Your task to perform on an android device: clear history in the chrome app Image 0: 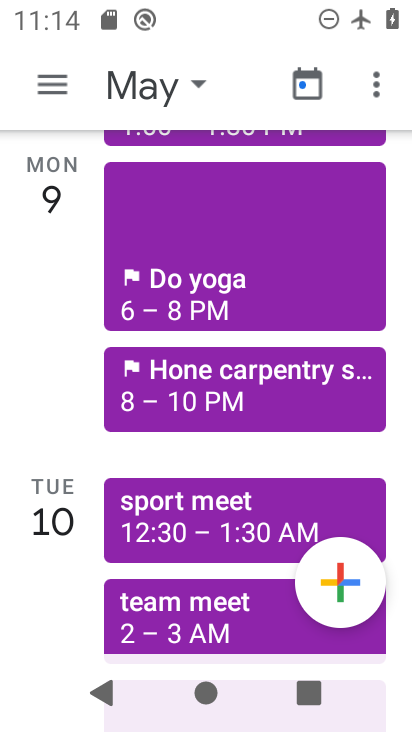
Step 0: press home button
Your task to perform on an android device: clear history in the chrome app Image 1: 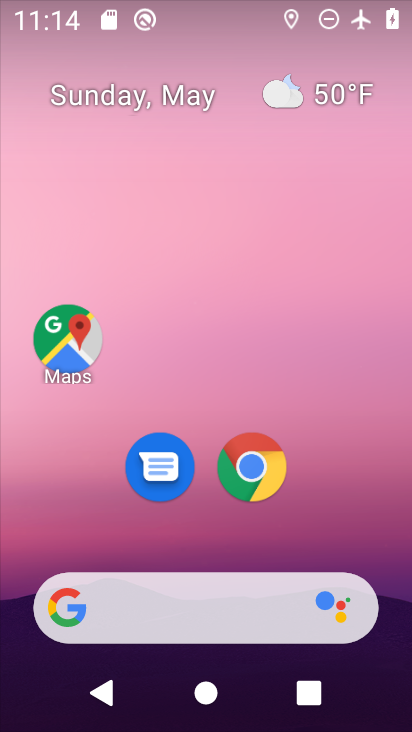
Step 1: click (268, 470)
Your task to perform on an android device: clear history in the chrome app Image 2: 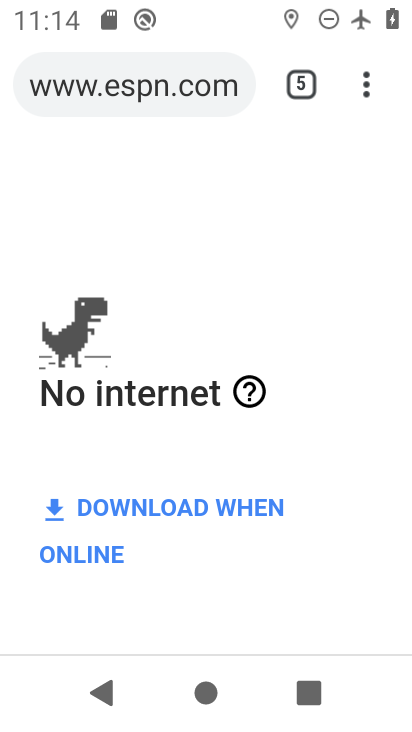
Step 2: task complete